Your task to perform on an android device: Go to Google maps Image 0: 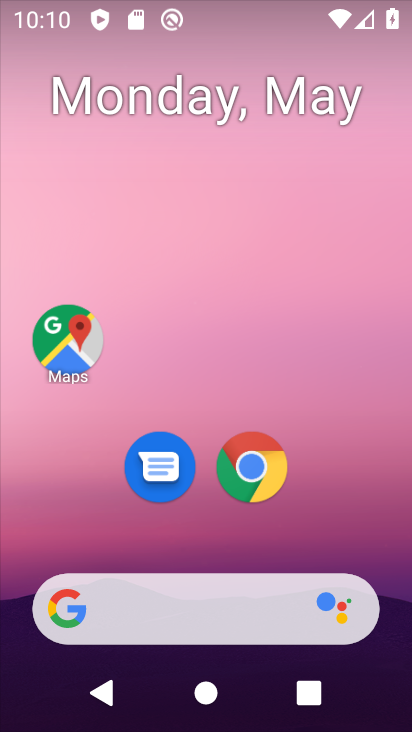
Step 0: drag from (322, 644) to (263, 130)
Your task to perform on an android device: Go to Google maps Image 1: 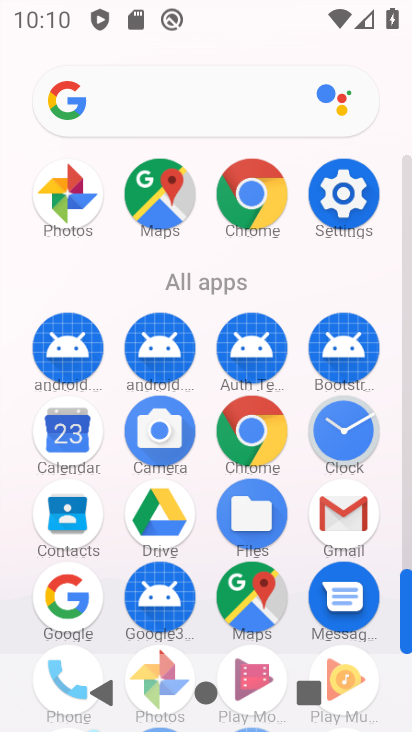
Step 1: drag from (283, 630) to (310, 426)
Your task to perform on an android device: Go to Google maps Image 2: 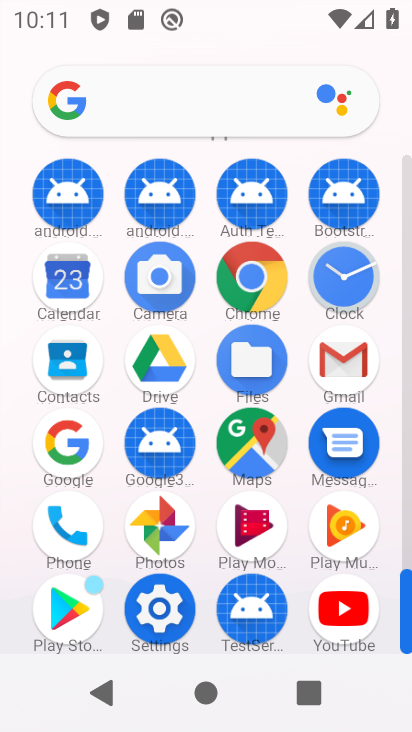
Step 2: click (247, 464)
Your task to perform on an android device: Go to Google maps Image 3: 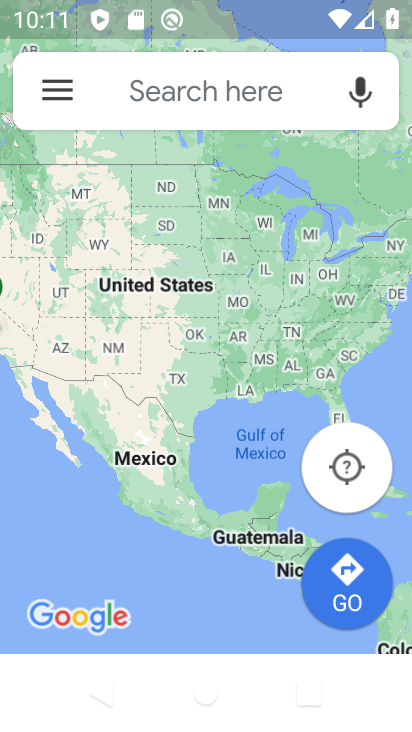
Step 3: task complete